Your task to perform on an android device: Open Chrome and go to the settings page Image 0: 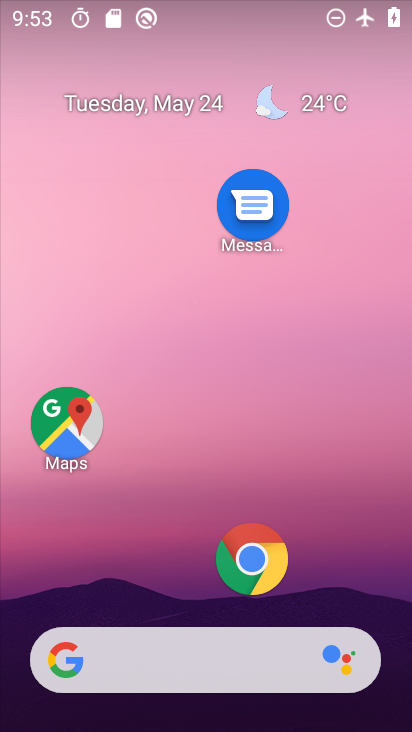
Step 0: click (253, 557)
Your task to perform on an android device: Open Chrome and go to the settings page Image 1: 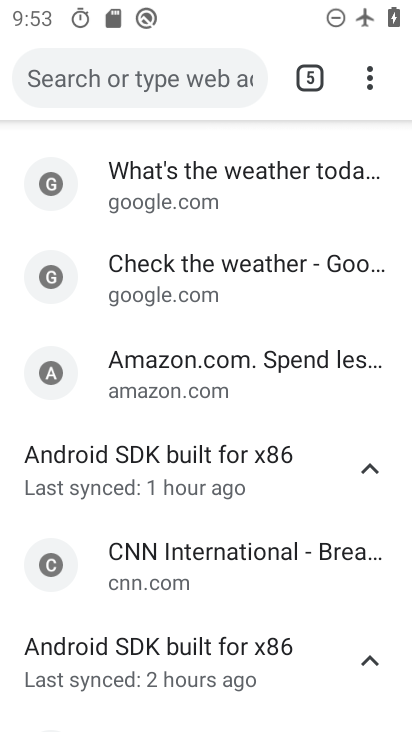
Step 1: click (359, 80)
Your task to perform on an android device: Open Chrome and go to the settings page Image 2: 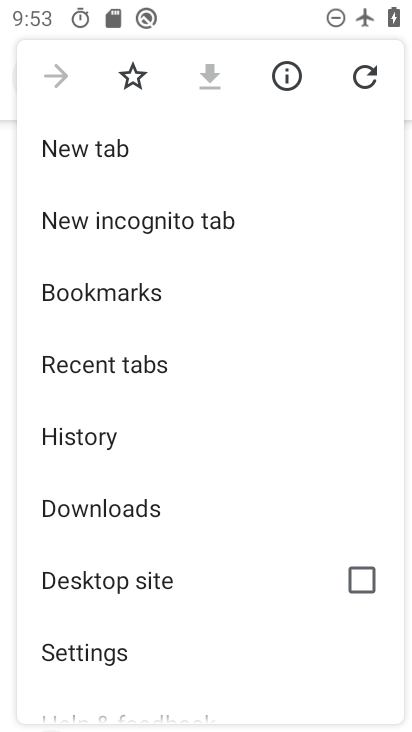
Step 2: click (174, 654)
Your task to perform on an android device: Open Chrome and go to the settings page Image 3: 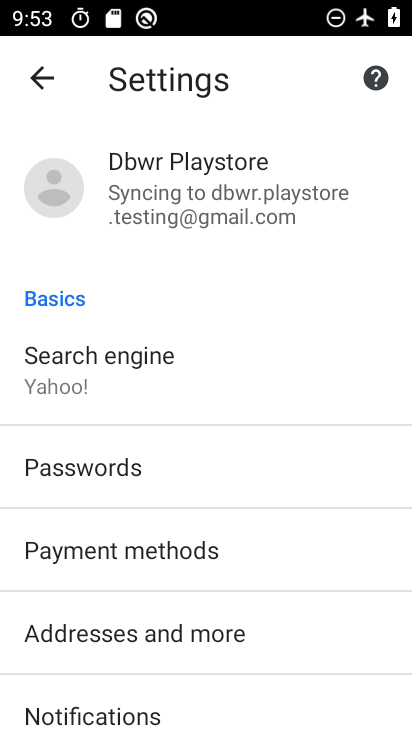
Step 3: task complete